Your task to perform on an android device: toggle sleep mode Image 0: 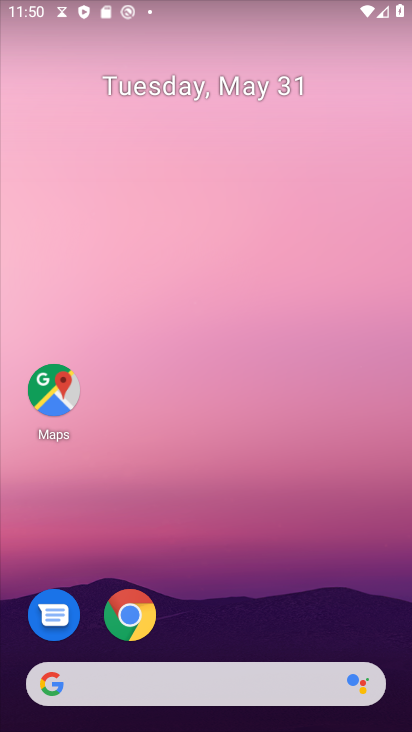
Step 0: drag from (281, 570) to (319, 58)
Your task to perform on an android device: toggle sleep mode Image 1: 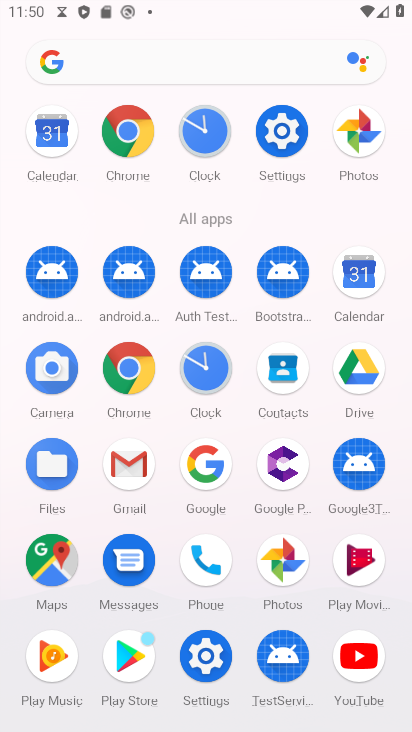
Step 1: click (286, 149)
Your task to perform on an android device: toggle sleep mode Image 2: 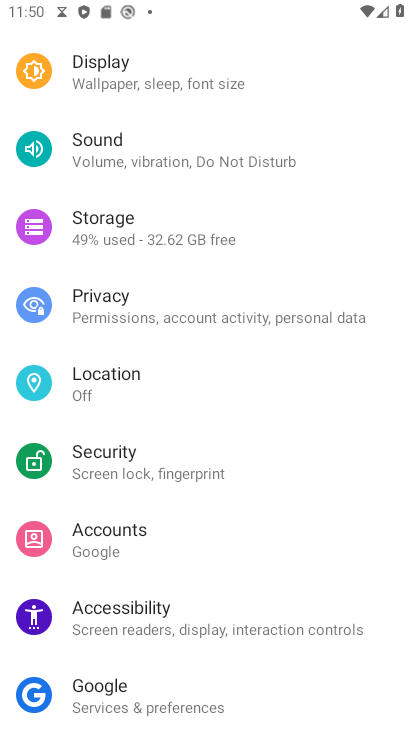
Step 2: click (222, 73)
Your task to perform on an android device: toggle sleep mode Image 3: 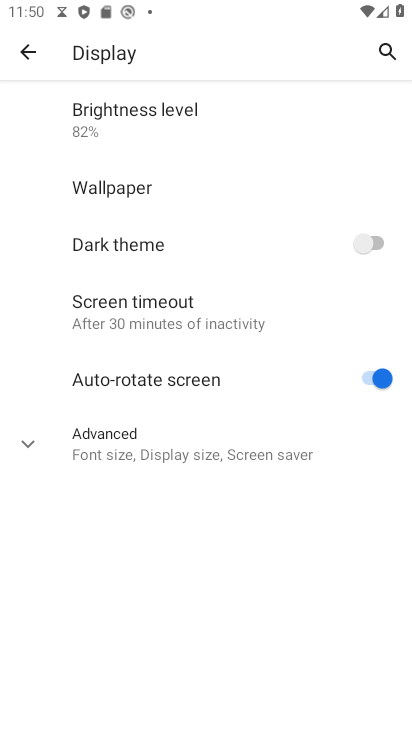
Step 3: task complete